Your task to perform on an android device: turn off sleep mode Image 0: 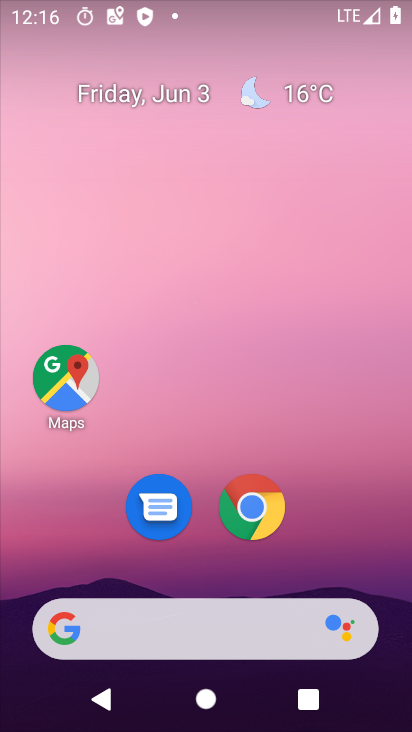
Step 0: drag from (398, 629) to (321, 36)
Your task to perform on an android device: turn off sleep mode Image 1: 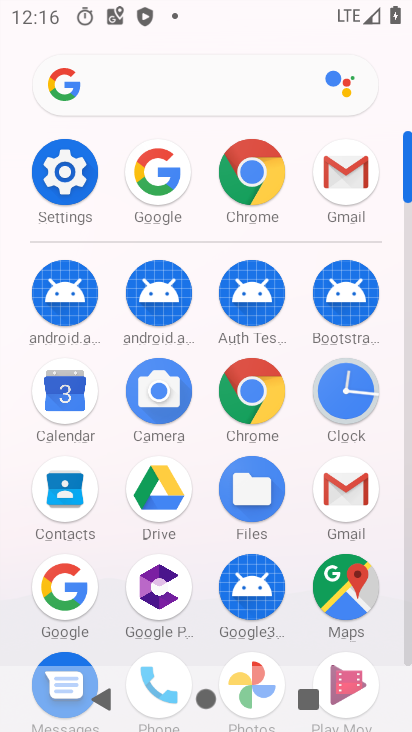
Step 1: click (27, 189)
Your task to perform on an android device: turn off sleep mode Image 2: 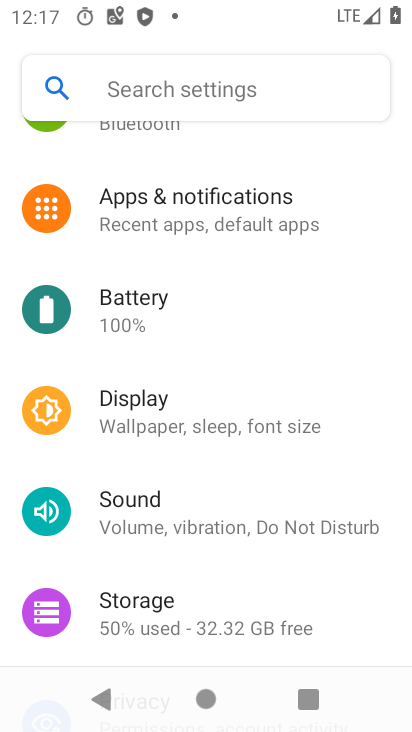
Step 2: task complete